Your task to perform on an android device: Open Reddit.com Image 0: 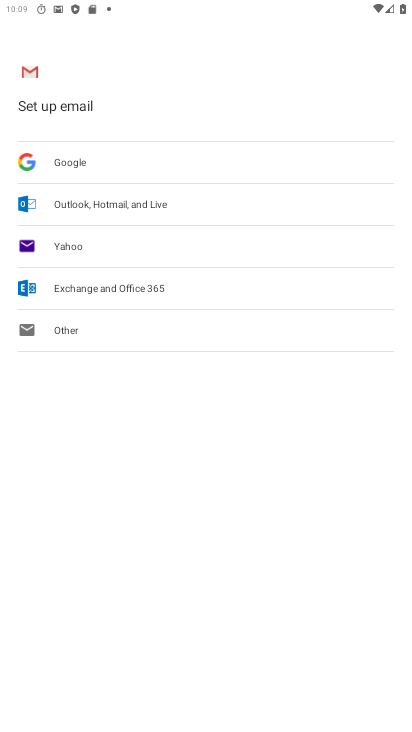
Step 0: press home button
Your task to perform on an android device: Open Reddit.com Image 1: 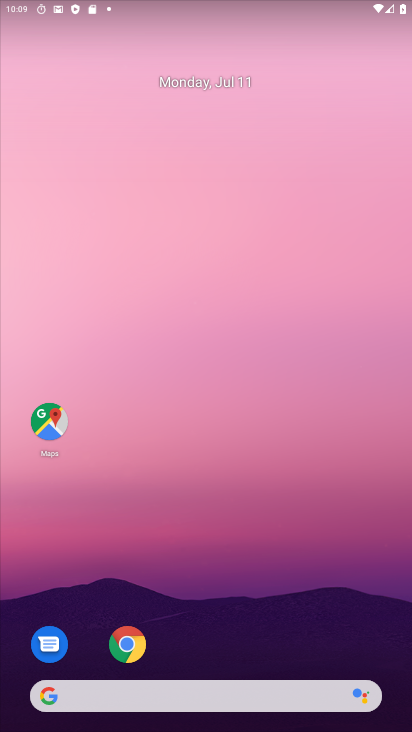
Step 1: drag from (195, 649) to (221, 153)
Your task to perform on an android device: Open Reddit.com Image 2: 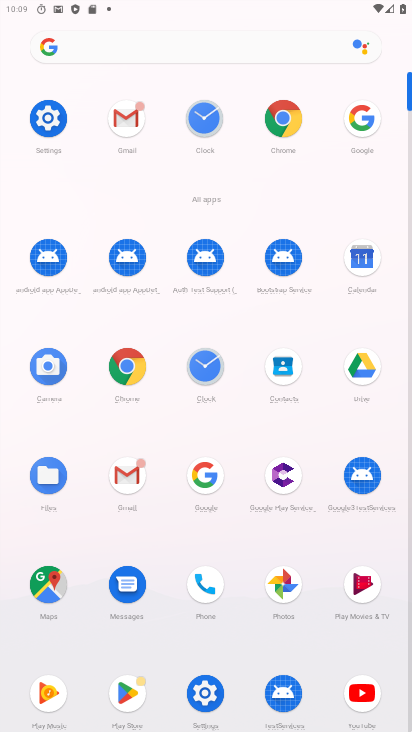
Step 2: click (202, 475)
Your task to perform on an android device: Open Reddit.com Image 3: 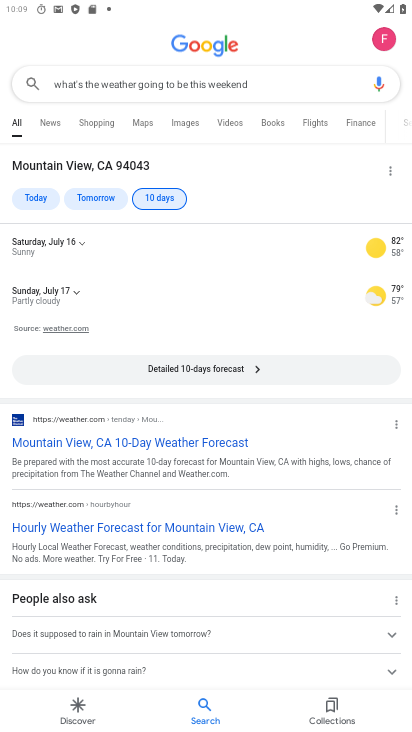
Step 3: click (290, 82)
Your task to perform on an android device: Open Reddit.com Image 4: 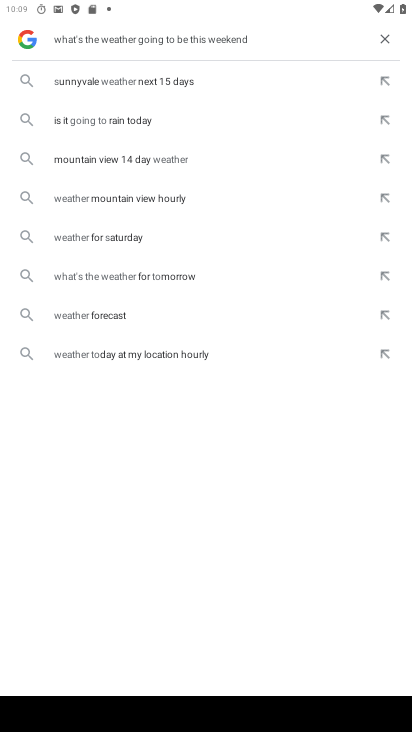
Step 4: click (377, 39)
Your task to perform on an android device: Open Reddit.com Image 5: 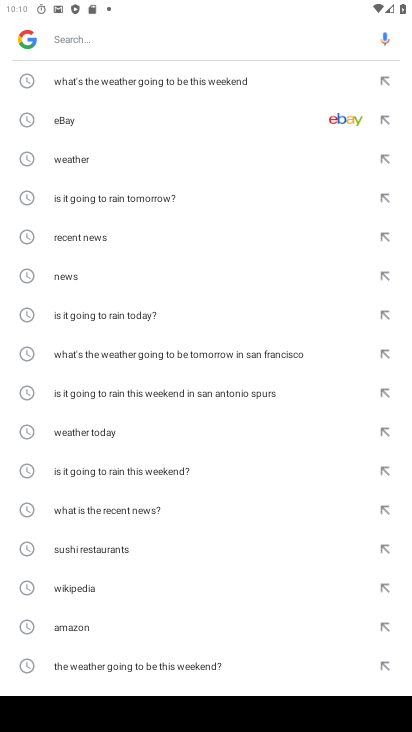
Step 5: type "reddit.com"
Your task to perform on an android device: Open Reddit.com Image 6: 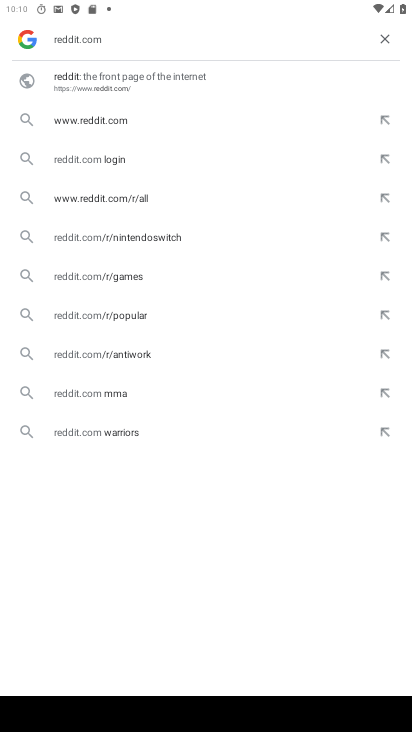
Step 6: click (165, 118)
Your task to perform on an android device: Open Reddit.com Image 7: 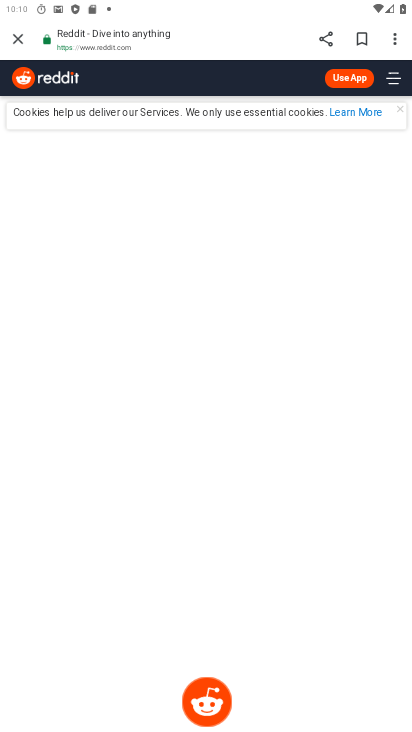
Step 7: task complete